Your task to perform on an android device: check android version Image 0: 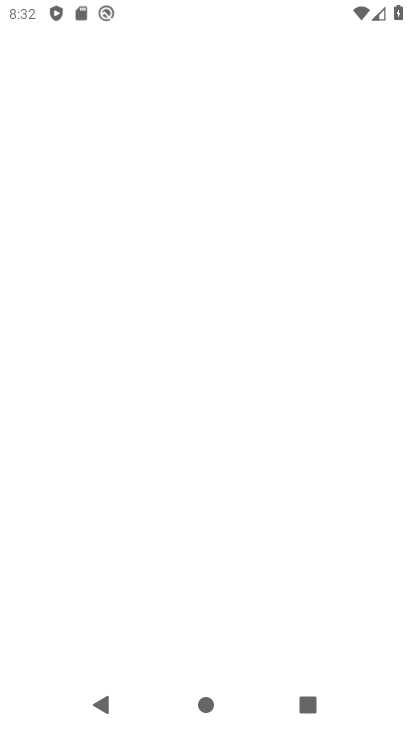
Step 0: drag from (304, 519) to (356, 78)
Your task to perform on an android device: check android version Image 1: 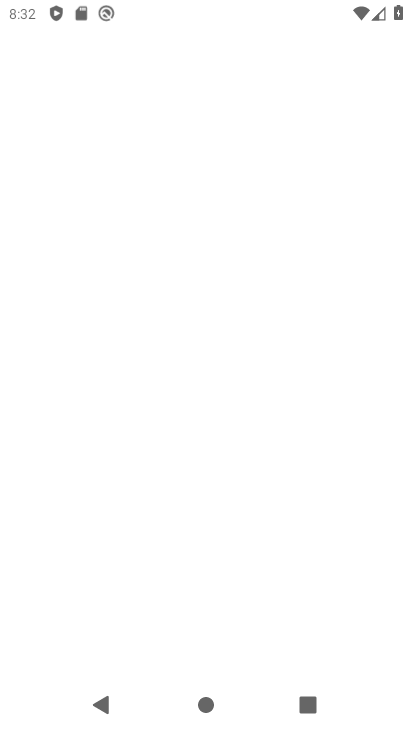
Step 1: press home button
Your task to perform on an android device: check android version Image 2: 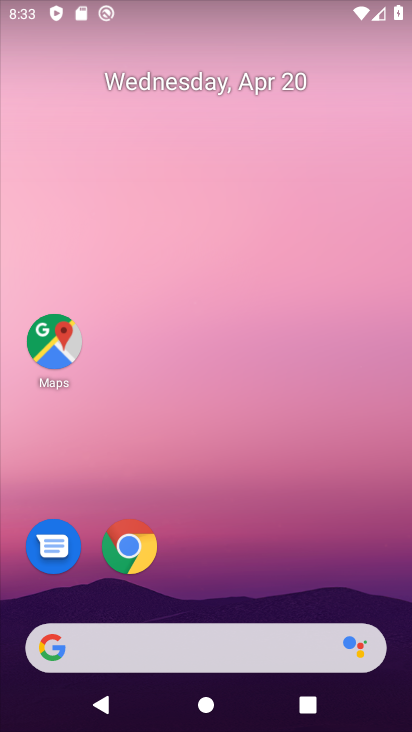
Step 2: drag from (234, 543) to (211, 117)
Your task to perform on an android device: check android version Image 3: 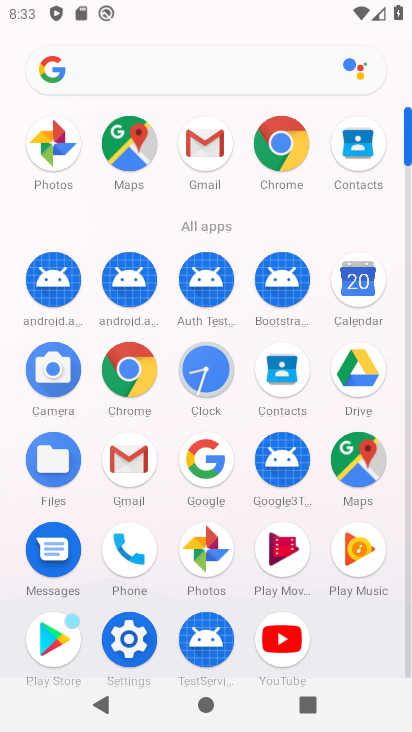
Step 3: drag from (217, 226) to (203, 4)
Your task to perform on an android device: check android version Image 4: 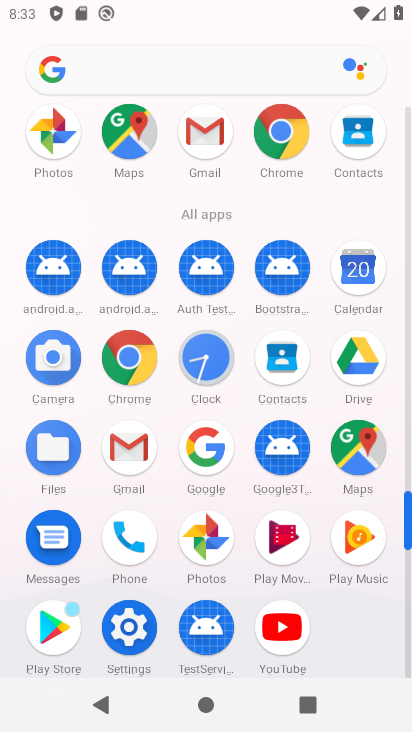
Step 4: click (138, 626)
Your task to perform on an android device: check android version Image 5: 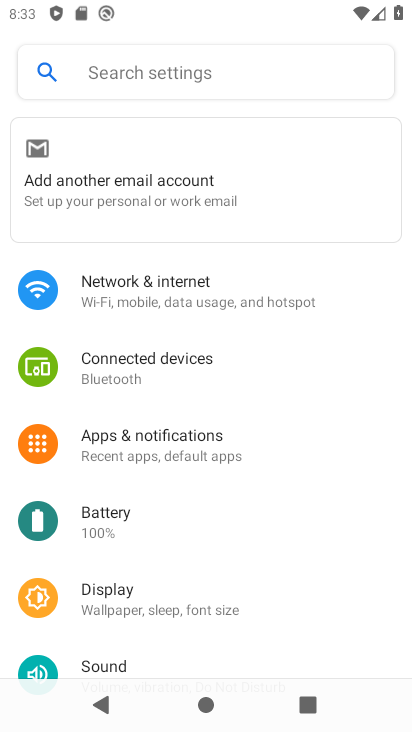
Step 5: drag from (241, 550) to (223, 275)
Your task to perform on an android device: check android version Image 6: 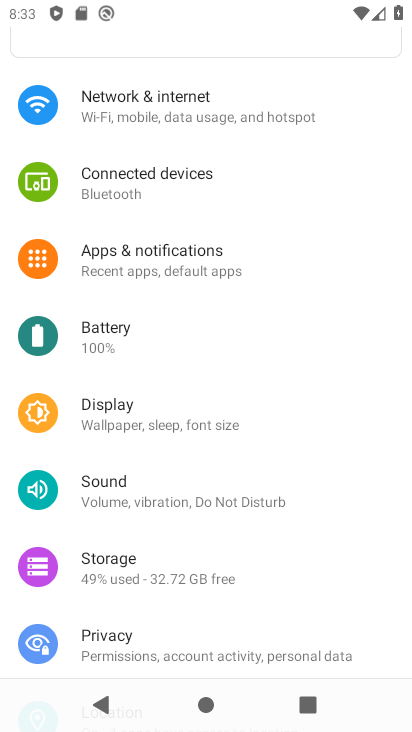
Step 6: drag from (215, 620) to (177, 16)
Your task to perform on an android device: check android version Image 7: 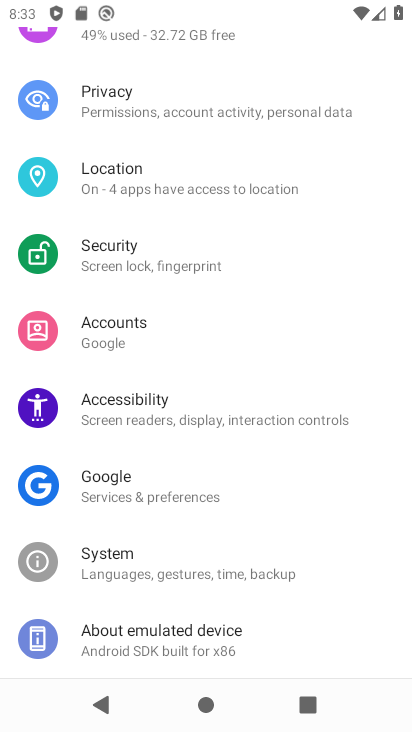
Step 7: click (177, 655)
Your task to perform on an android device: check android version Image 8: 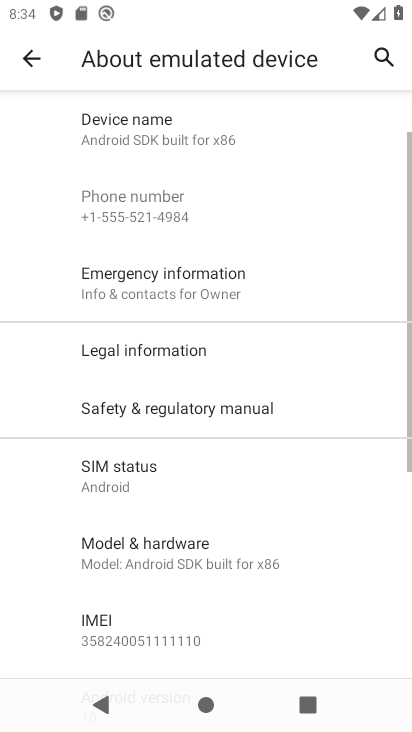
Step 8: drag from (216, 476) to (237, 92)
Your task to perform on an android device: check android version Image 9: 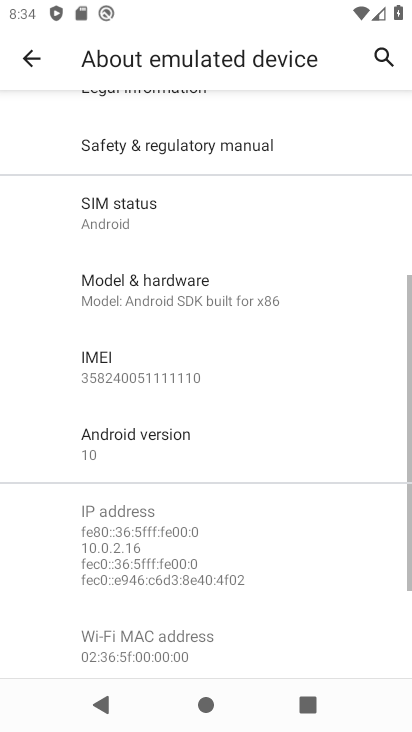
Step 9: click (167, 431)
Your task to perform on an android device: check android version Image 10: 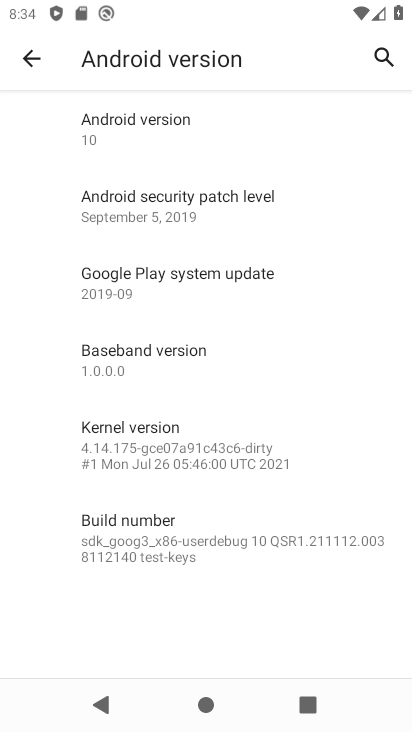
Step 10: task complete